Your task to perform on an android device: Search for Mexican restaurants on Maps Image 0: 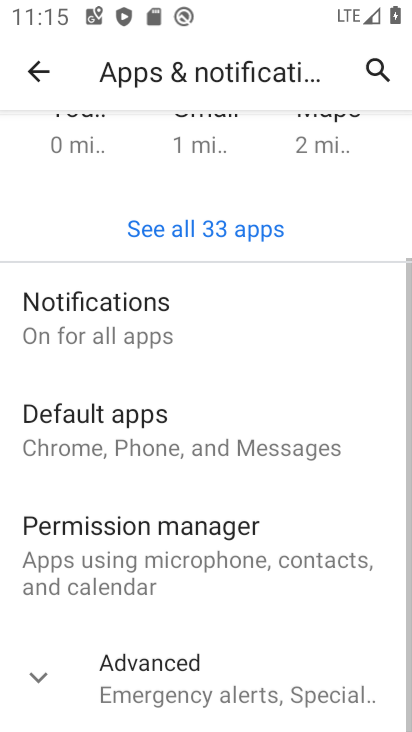
Step 0: drag from (220, 707) to (190, 200)
Your task to perform on an android device: Search for Mexican restaurants on Maps Image 1: 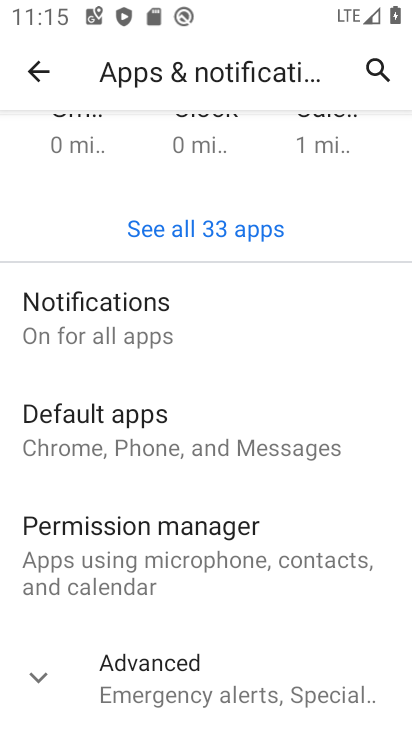
Step 1: press home button
Your task to perform on an android device: Search for Mexican restaurants on Maps Image 2: 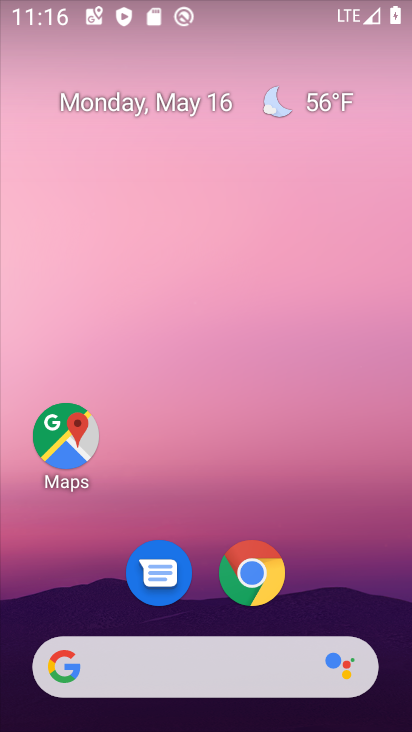
Step 2: click (50, 447)
Your task to perform on an android device: Search for Mexican restaurants on Maps Image 3: 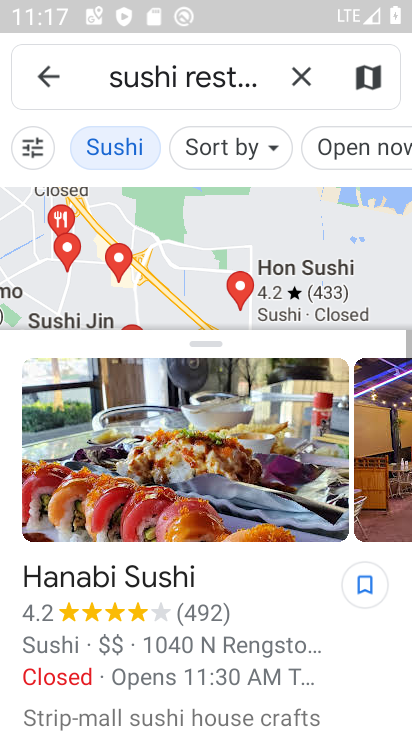
Step 3: click (291, 74)
Your task to perform on an android device: Search for Mexican restaurants on Maps Image 4: 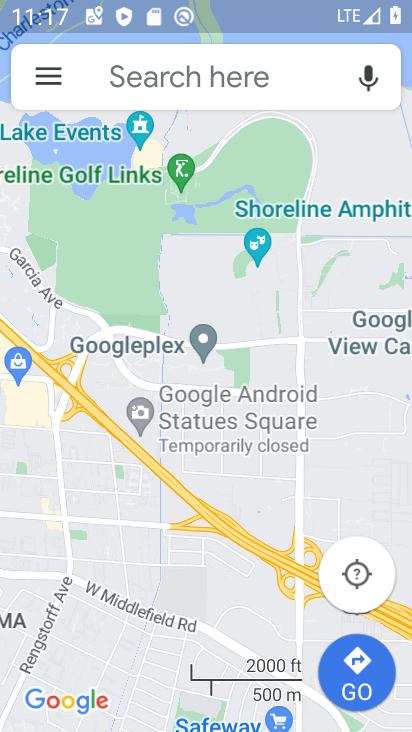
Step 4: click (218, 87)
Your task to perform on an android device: Search for Mexican restaurants on Maps Image 5: 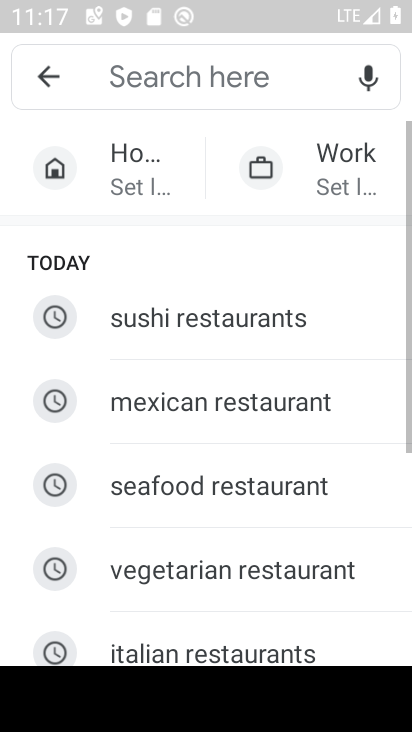
Step 5: click (246, 388)
Your task to perform on an android device: Search for Mexican restaurants on Maps Image 6: 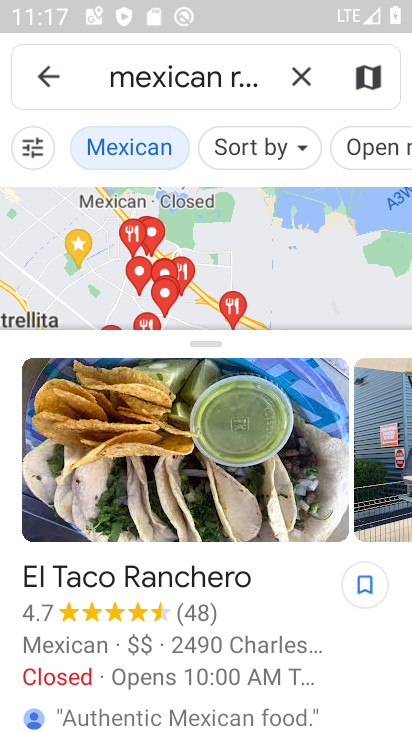
Step 6: task complete